Your task to perform on an android device: Check the news Image 0: 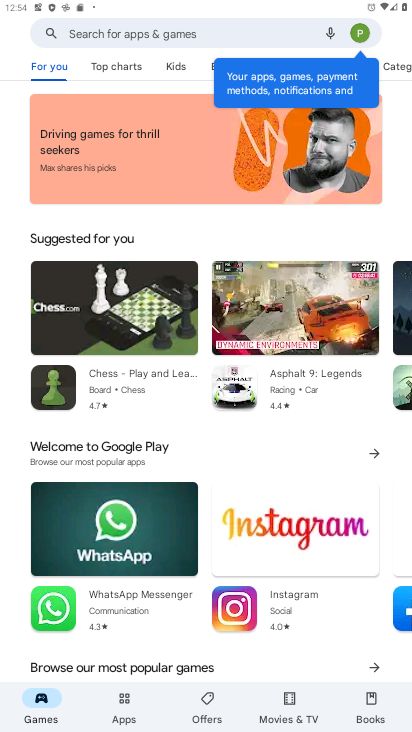
Step 0: press home button
Your task to perform on an android device: Check the news Image 1: 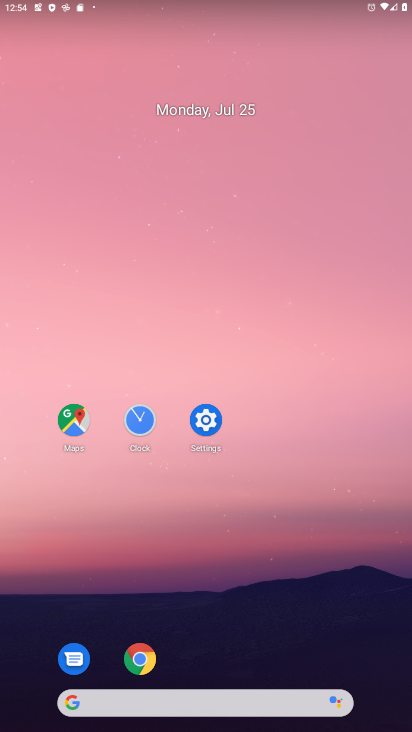
Step 1: task complete